Your task to perform on an android device: What's the weather going to be this weekend? Image 0: 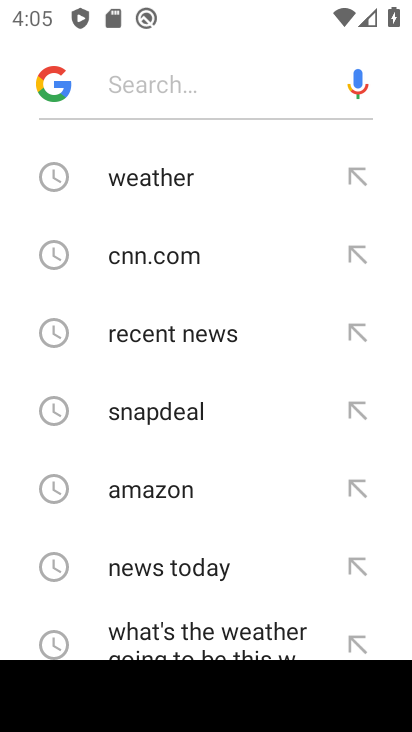
Step 0: click (216, 368)
Your task to perform on an android device: What's the weather going to be this weekend? Image 1: 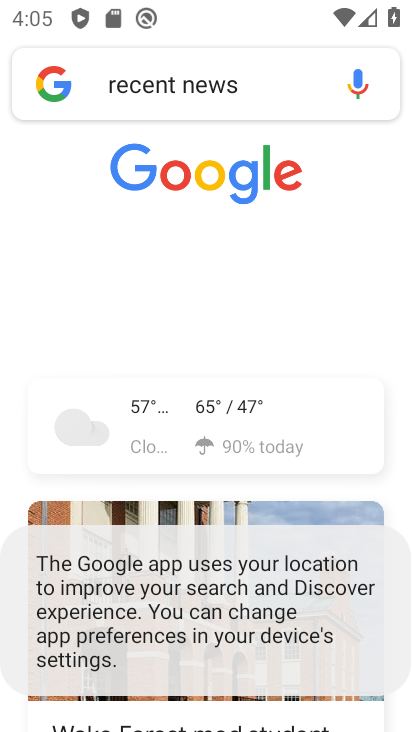
Step 1: click (210, 426)
Your task to perform on an android device: What's the weather going to be this weekend? Image 2: 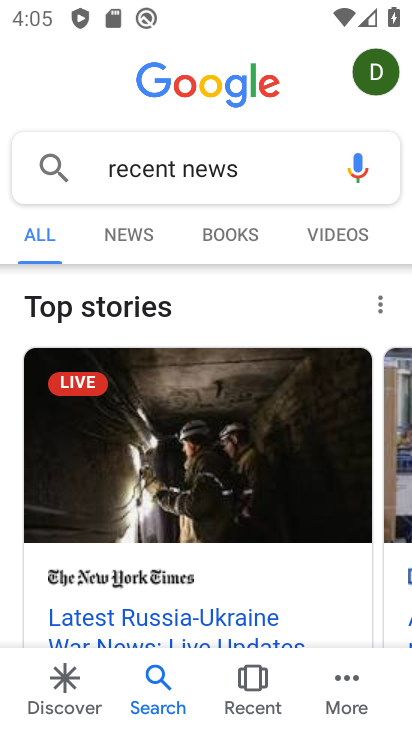
Step 2: press back button
Your task to perform on an android device: What's the weather going to be this weekend? Image 3: 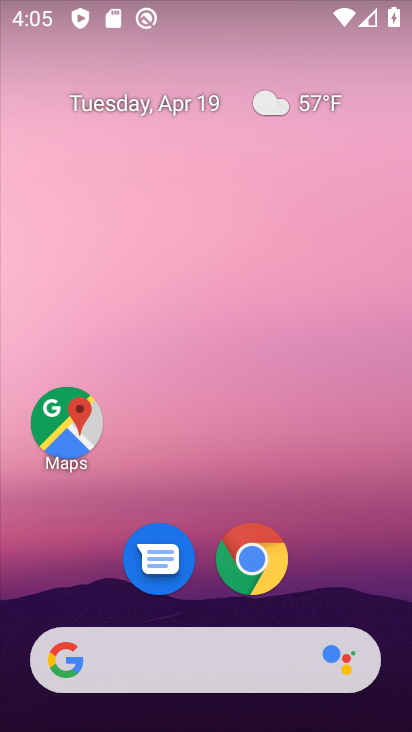
Step 3: click (198, 627)
Your task to perform on an android device: What's the weather going to be this weekend? Image 4: 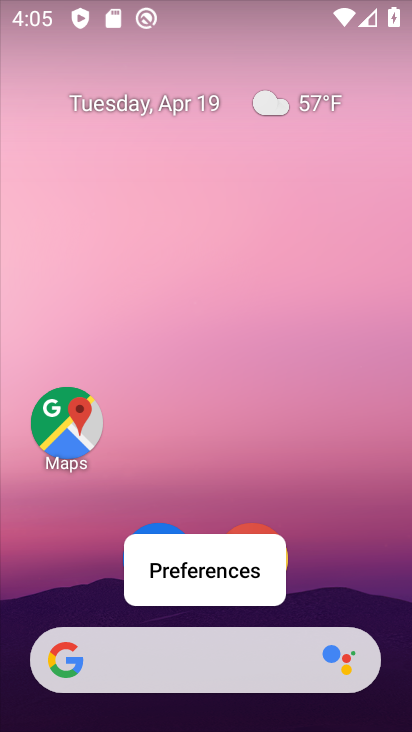
Step 4: click (180, 645)
Your task to perform on an android device: What's the weather going to be this weekend? Image 5: 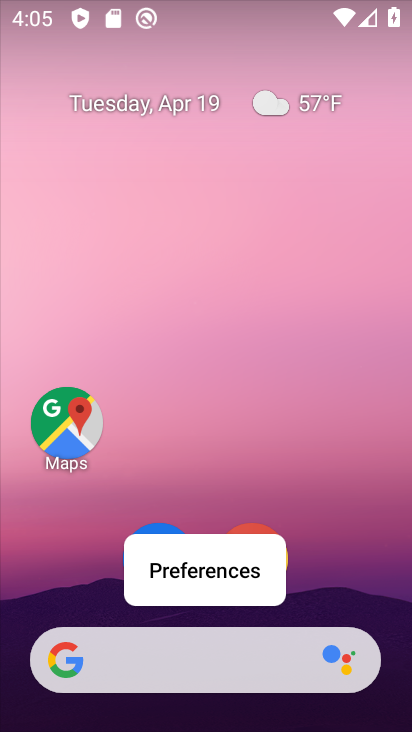
Step 5: click (183, 657)
Your task to perform on an android device: What's the weather going to be this weekend? Image 6: 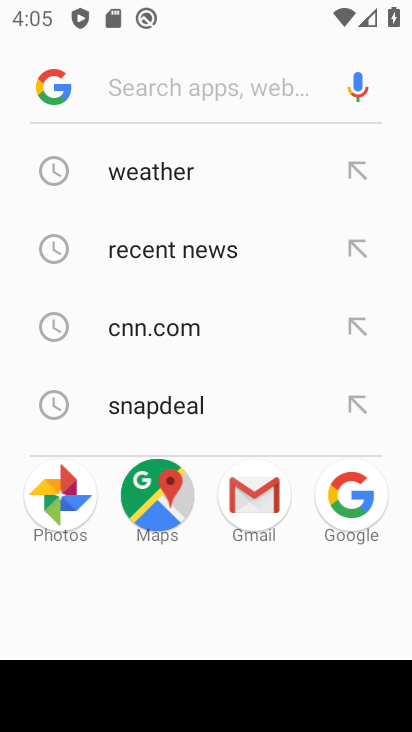
Step 6: click (191, 180)
Your task to perform on an android device: What's the weather going to be this weekend? Image 7: 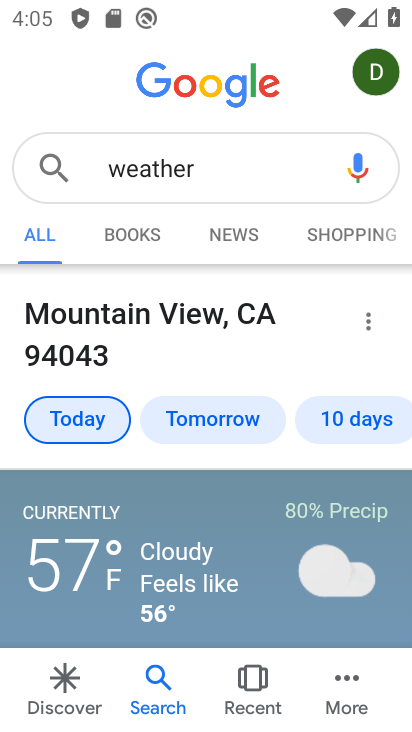
Step 7: drag from (208, 557) to (300, 307)
Your task to perform on an android device: What's the weather going to be this weekend? Image 8: 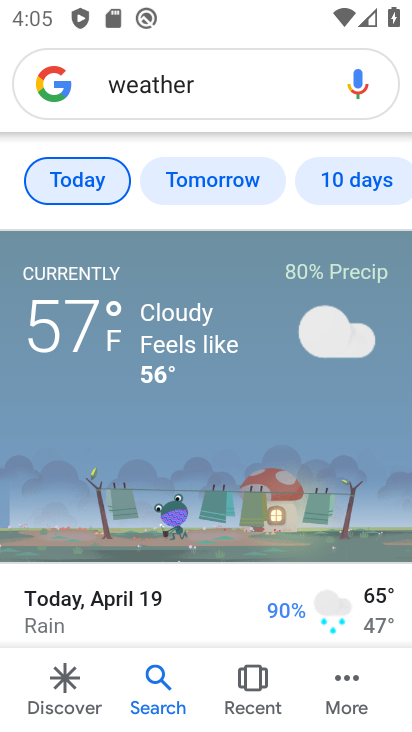
Step 8: click (342, 186)
Your task to perform on an android device: What's the weather going to be this weekend? Image 9: 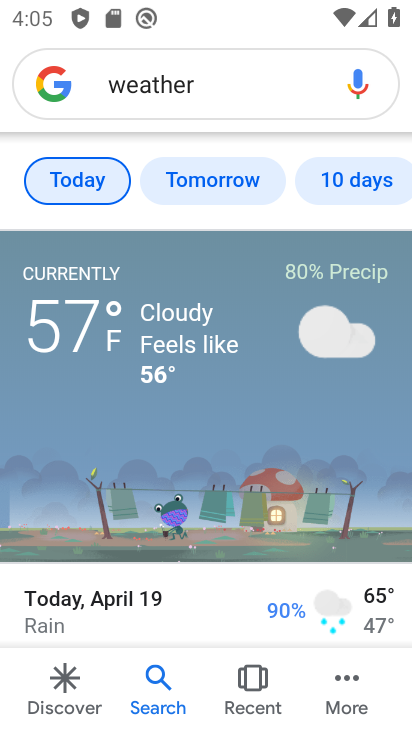
Step 9: click (348, 185)
Your task to perform on an android device: What's the weather going to be this weekend? Image 10: 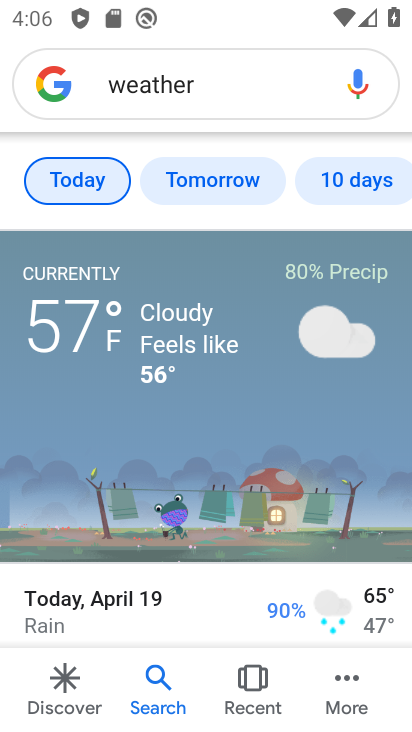
Step 10: click (348, 185)
Your task to perform on an android device: What's the weather going to be this weekend? Image 11: 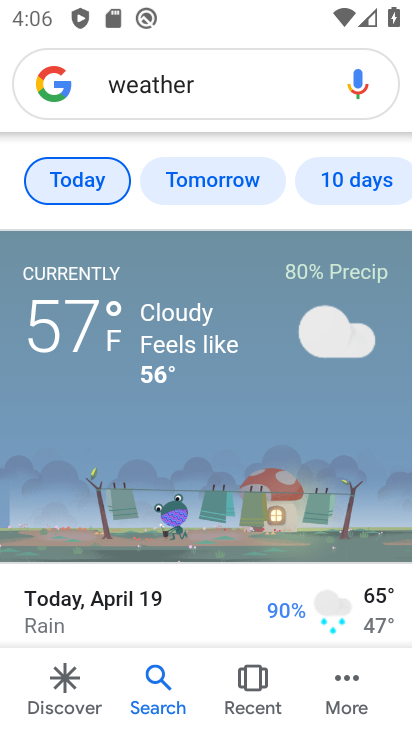
Step 11: click (348, 185)
Your task to perform on an android device: What's the weather going to be this weekend? Image 12: 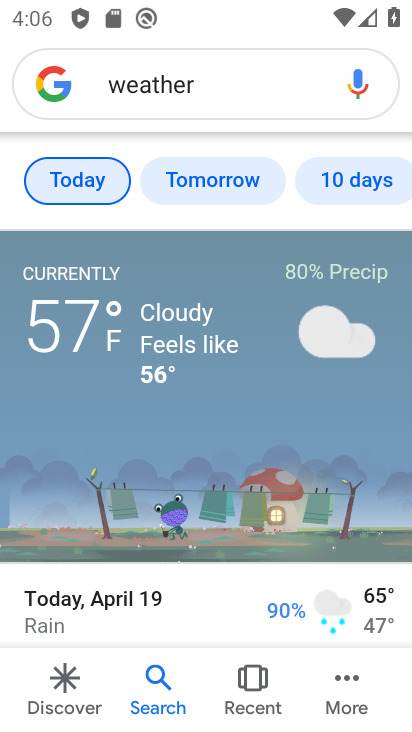
Step 12: click (348, 185)
Your task to perform on an android device: What's the weather going to be this weekend? Image 13: 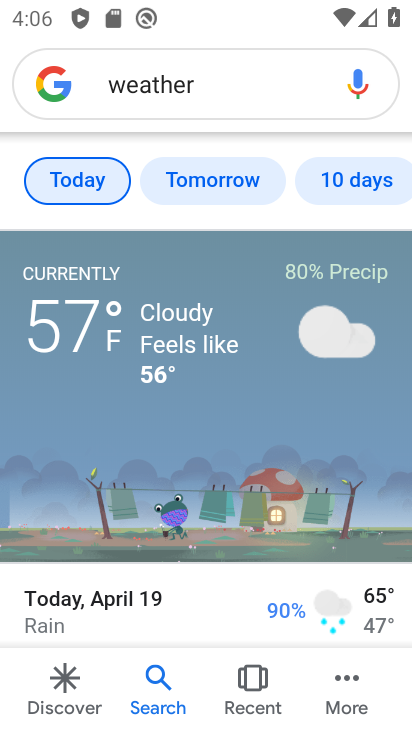
Step 13: click (350, 185)
Your task to perform on an android device: What's the weather going to be this weekend? Image 14: 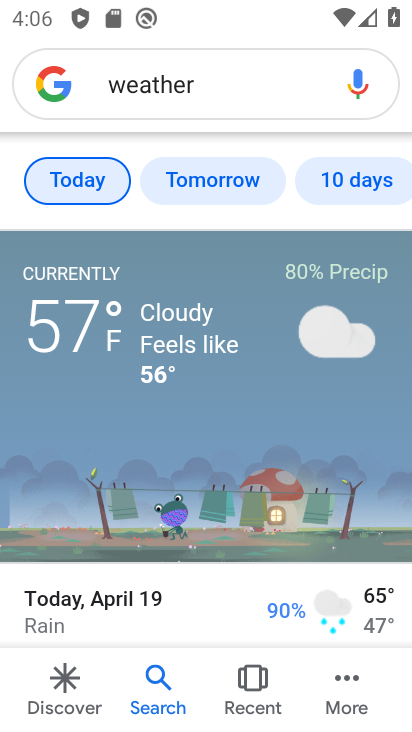
Step 14: click (343, 185)
Your task to perform on an android device: What's the weather going to be this weekend? Image 15: 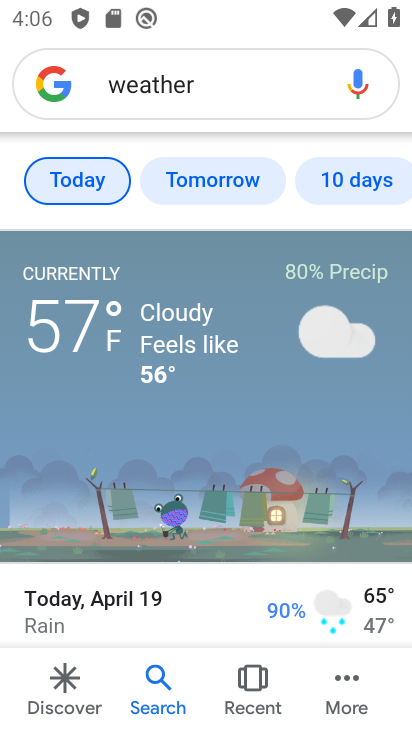
Step 15: click (343, 185)
Your task to perform on an android device: What's the weather going to be this weekend? Image 16: 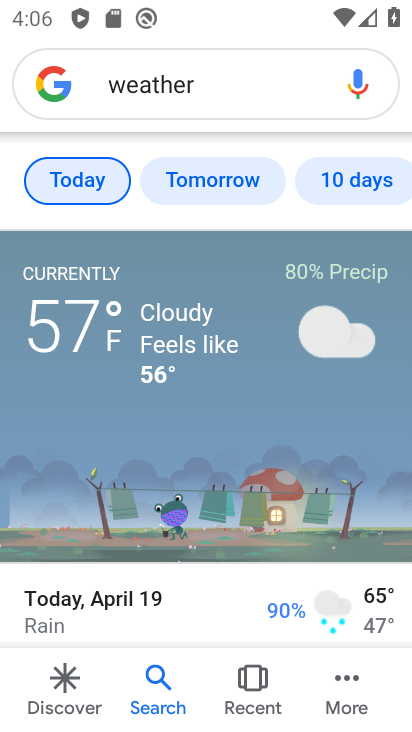
Step 16: drag from (204, 518) to (249, 506)
Your task to perform on an android device: What's the weather going to be this weekend? Image 17: 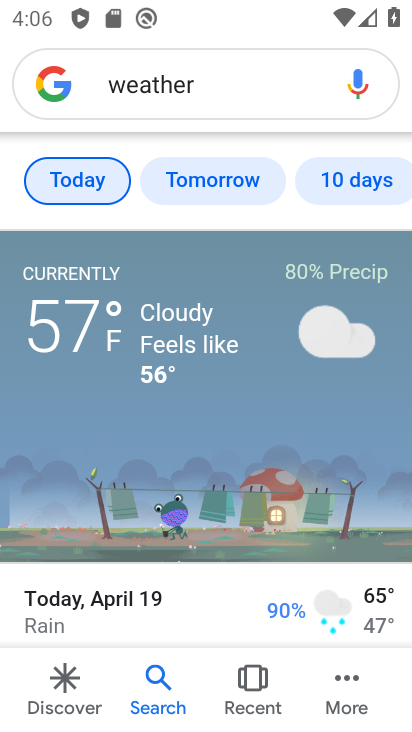
Step 17: click (362, 185)
Your task to perform on an android device: What's the weather going to be this weekend? Image 18: 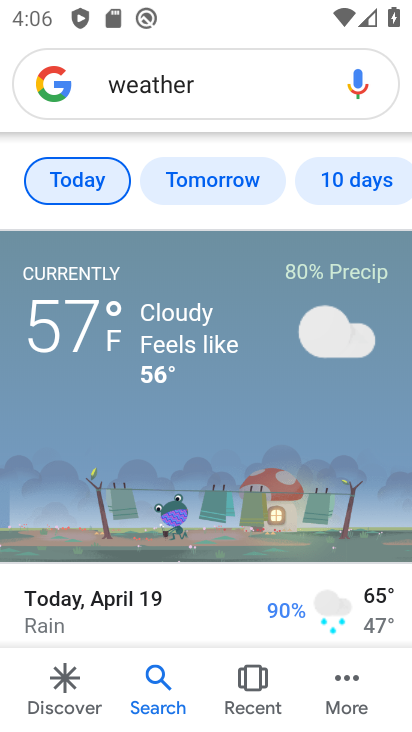
Step 18: click (361, 186)
Your task to perform on an android device: What's the weather going to be this weekend? Image 19: 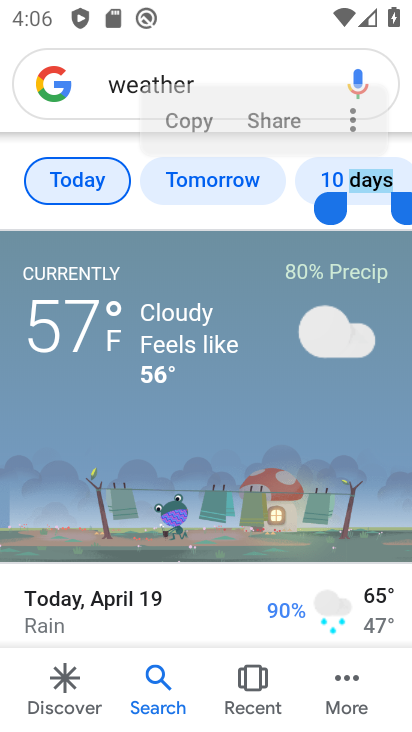
Step 19: click (361, 186)
Your task to perform on an android device: What's the weather going to be this weekend? Image 20: 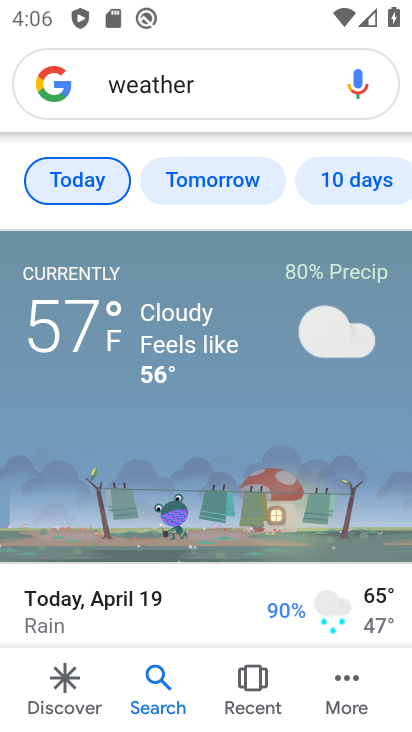
Step 20: click (309, 186)
Your task to perform on an android device: What's the weather going to be this weekend? Image 21: 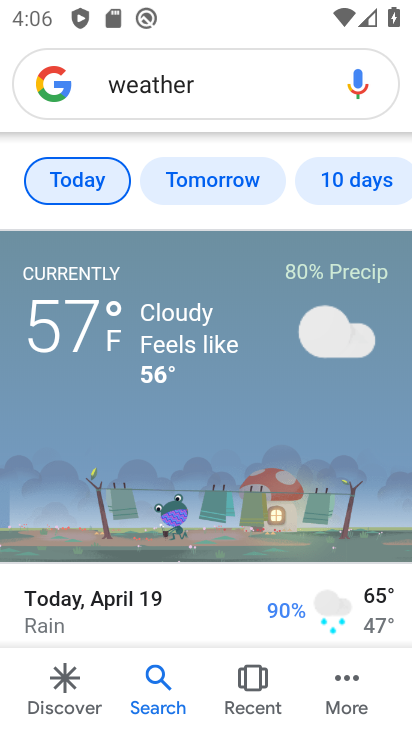
Step 21: click (314, 186)
Your task to perform on an android device: What's the weather going to be this weekend? Image 22: 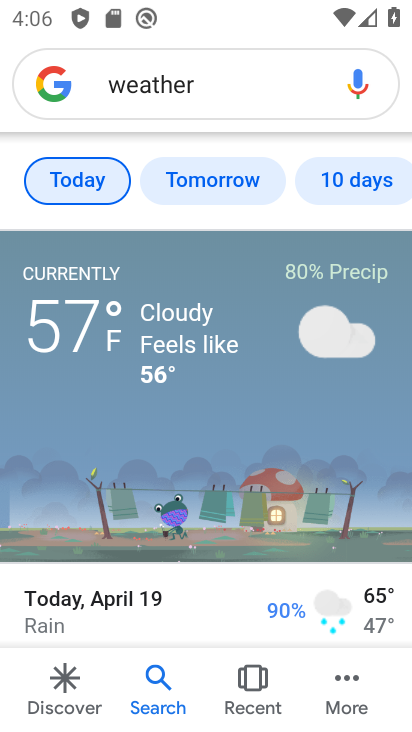
Step 22: click (327, 186)
Your task to perform on an android device: What's the weather going to be this weekend? Image 23: 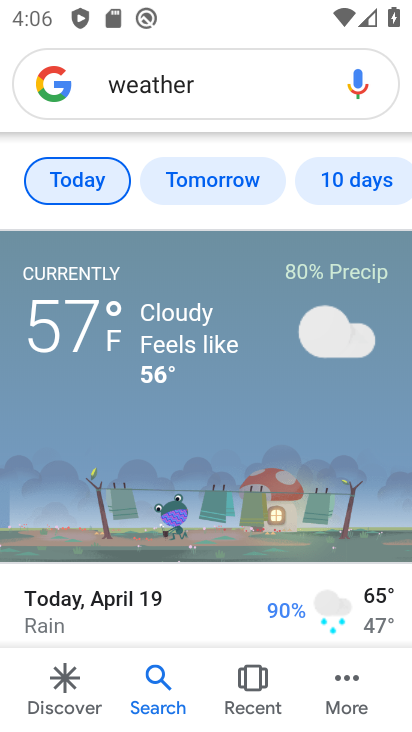
Step 23: click (327, 186)
Your task to perform on an android device: What's the weather going to be this weekend? Image 24: 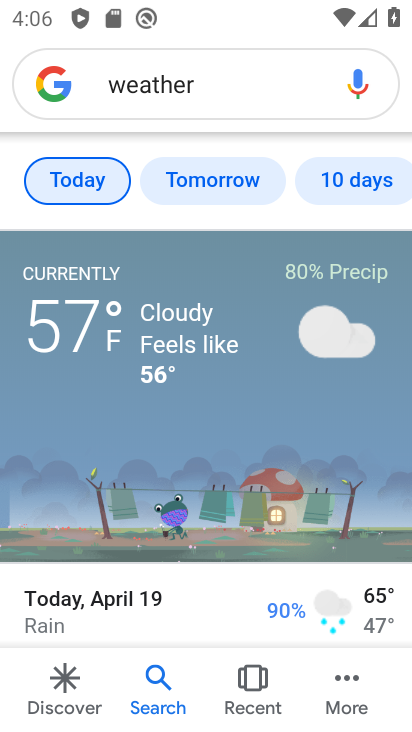
Step 24: press back button
Your task to perform on an android device: What's the weather going to be this weekend? Image 25: 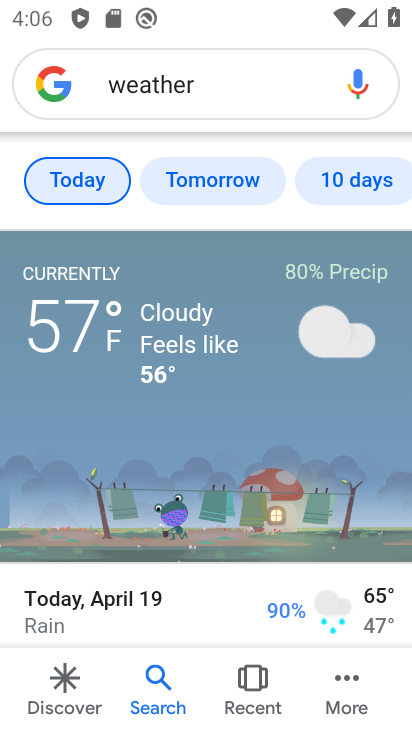
Step 25: press back button
Your task to perform on an android device: What's the weather going to be this weekend? Image 26: 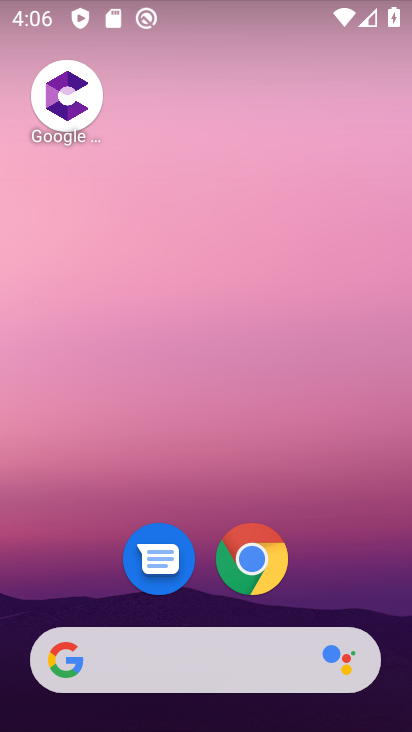
Step 26: press home button
Your task to perform on an android device: What's the weather going to be this weekend? Image 27: 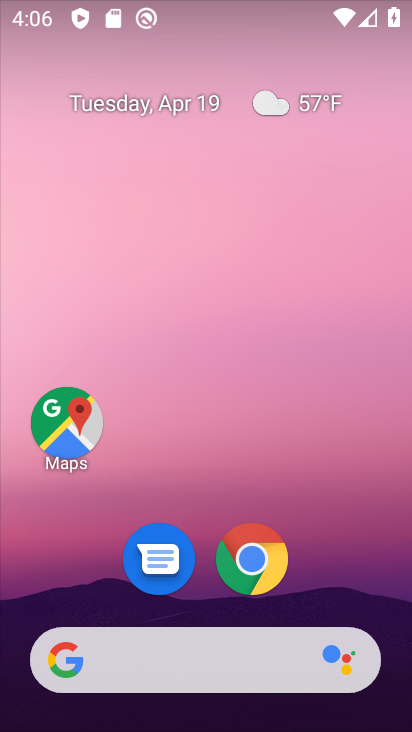
Step 27: click (192, 662)
Your task to perform on an android device: What's the weather going to be this weekend? Image 28: 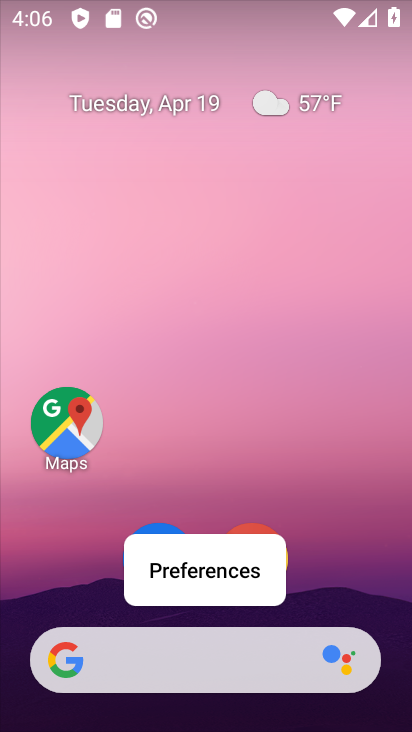
Step 28: click (192, 662)
Your task to perform on an android device: What's the weather going to be this weekend? Image 29: 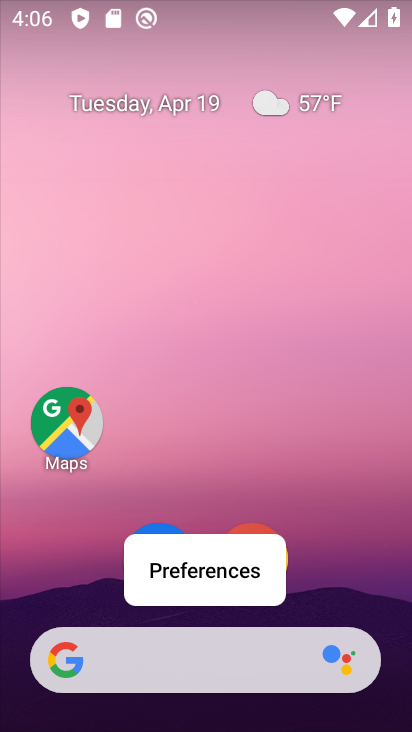
Step 29: click (198, 669)
Your task to perform on an android device: What's the weather going to be this weekend? Image 30: 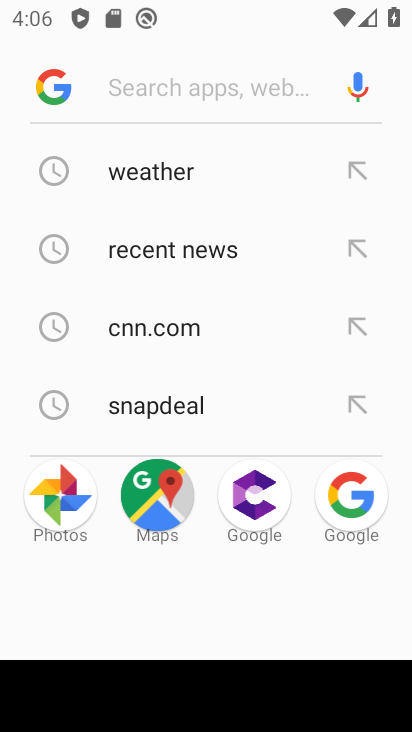
Step 30: click (193, 177)
Your task to perform on an android device: What's the weather going to be this weekend? Image 31: 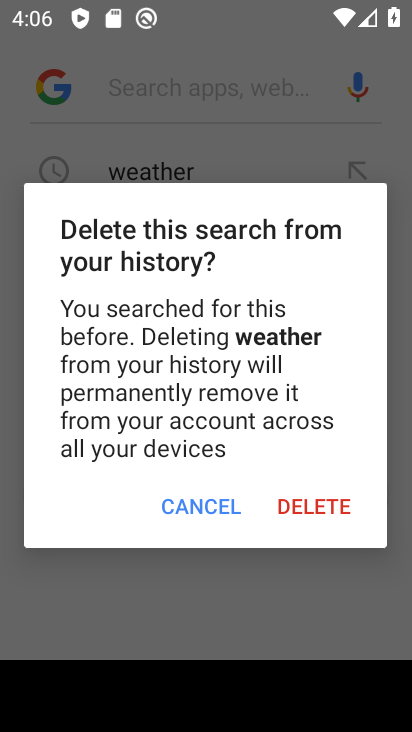
Step 31: click (203, 508)
Your task to perform on an android device: What's the weather going to be this weekend? Image 32: 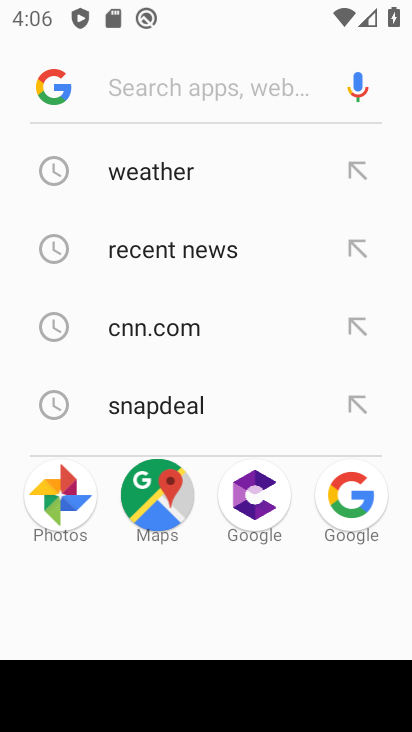
Step 32: click (288, 163)
Your task to perform on an android device: What's the weather going to be this weekend? Image 33: 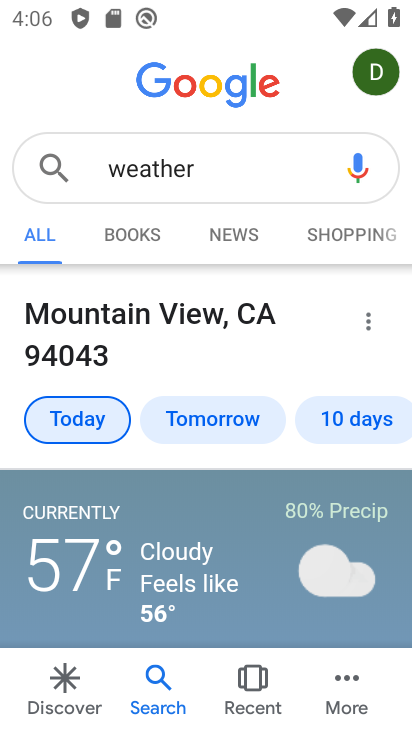
Step 33: drag from (166, 458) to (276, 141)
Your task to perform on an android device: What's the weather going to be this weekend? Image 34: 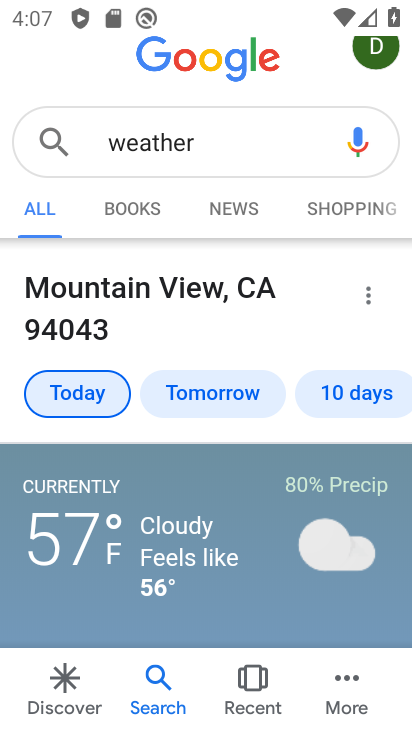
Step 34: drag from (219, 534) to (311, 211)
Your task to perform on an android device: What's the weather going to be this weekend? Image 35: 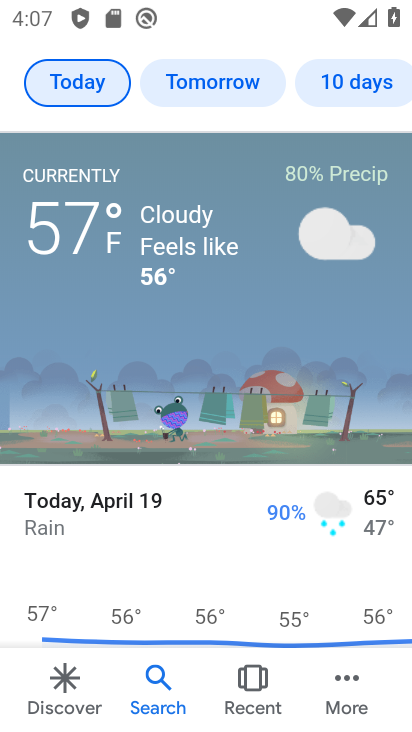
Step 35: click (359, 84)
Your task to perform on an android device: What's the weather going to be this weekend? Image 36: 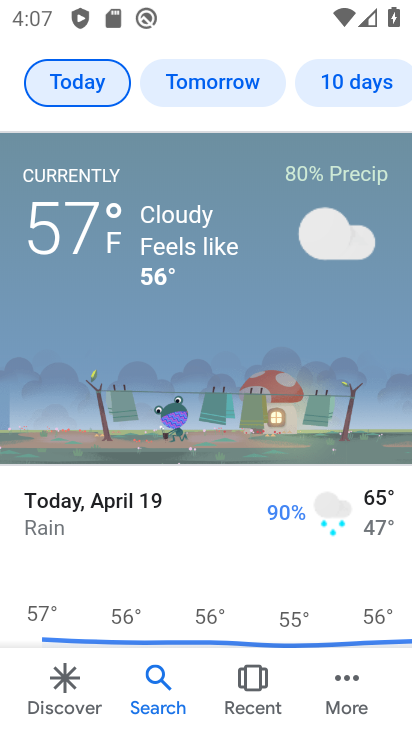
Step 36: click (359, 84)
Your task to perform on an android device: What's the weather going to be this weekend? Image 37: 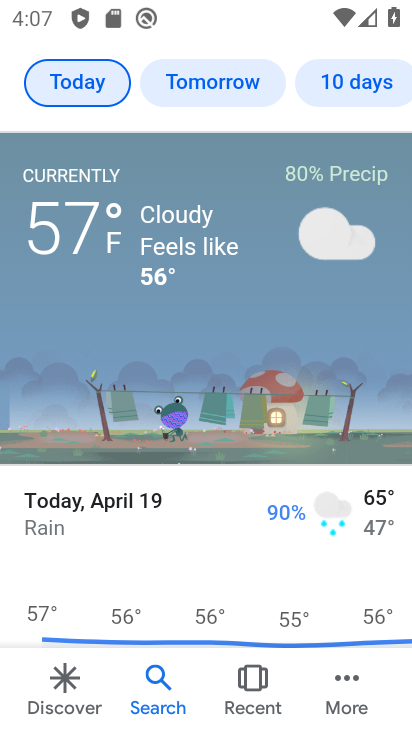
Step 37: click (359, 84)
Your task to perform on an android device: What's the weather going to be this weekend? Image 38: 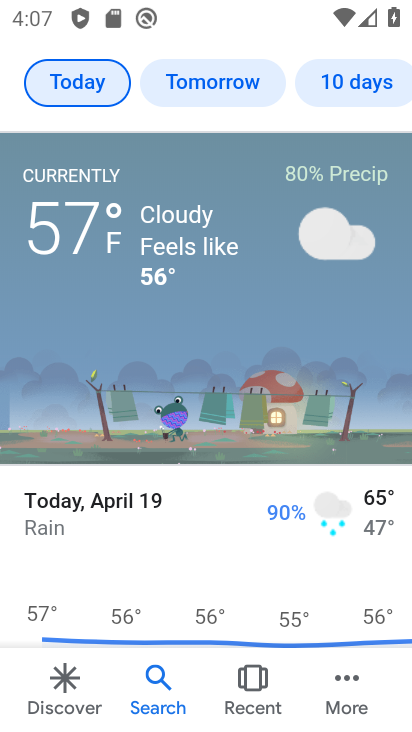
Step 38: click (359, 83)
Your task to perform on an android device: What's the weather going to be this weekend? Image 39: 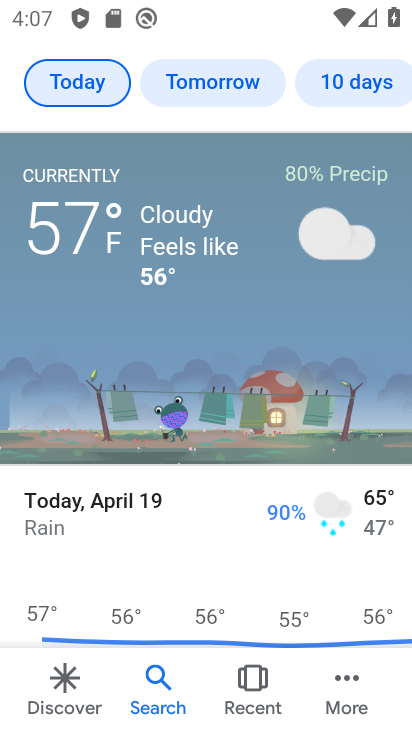
Step 39: click (359, 83)
Your task to perform on an android device: What's the weather going to be this weekend? Image 40: 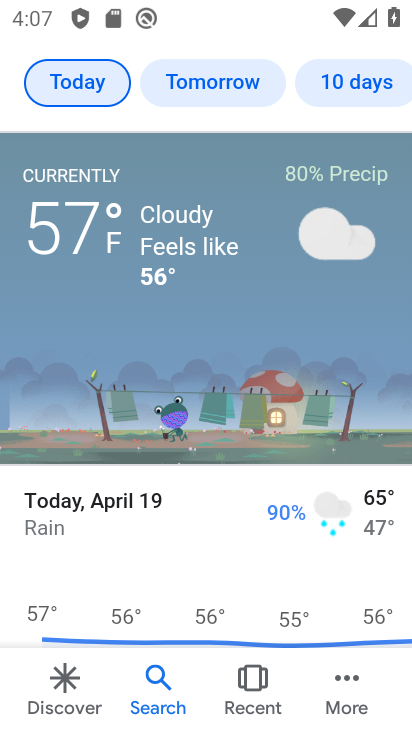
Step 40: click (366, 104)
Your task to perform on an android device: What's the weather going to be this weekend? Image 41: 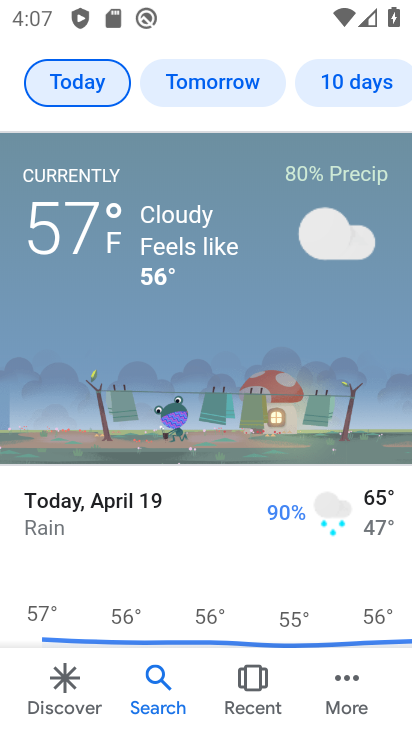
Step 41: click (367, 101)
Your task to perform on an android device: What's the weather going to be this weekend? Image 42: 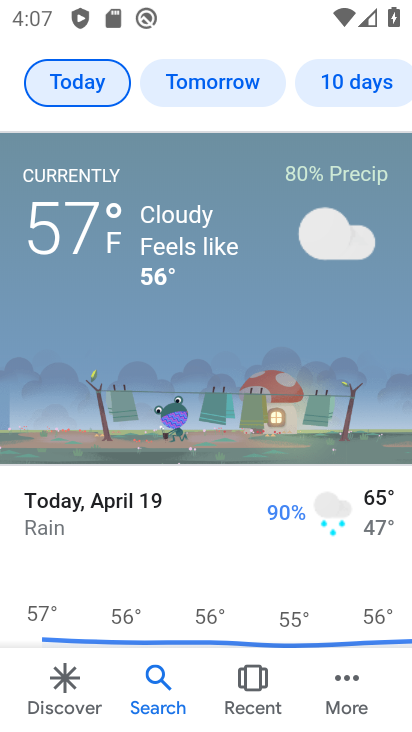
Step 42: click (361, 91)
Your task to perform on an android device: What's the weather going to be this weekend? Image 43: 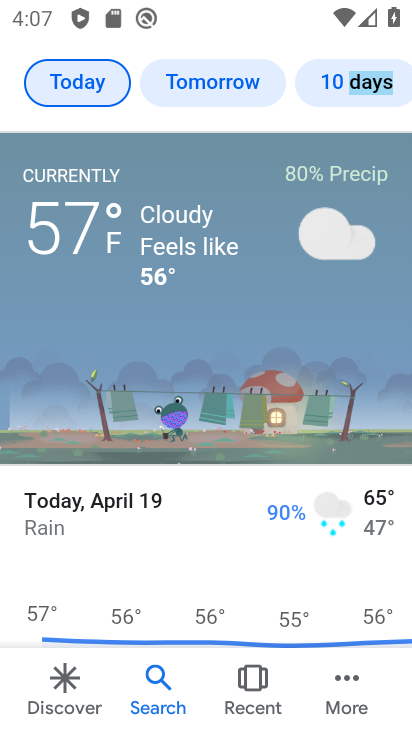
Step 43: click (353, 91)
Your task to perform on an android device: What's the weather going to be this weekend? Image 44: 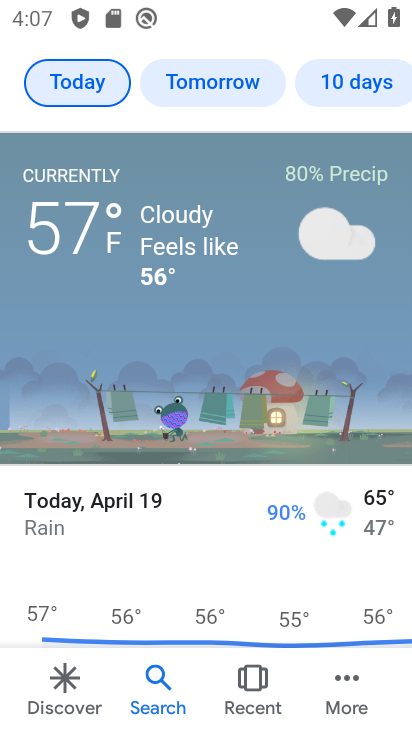
Step 44: click (313, 279)
Your task to perform on an android device: What's the weather going to be this weekend? Image 45: 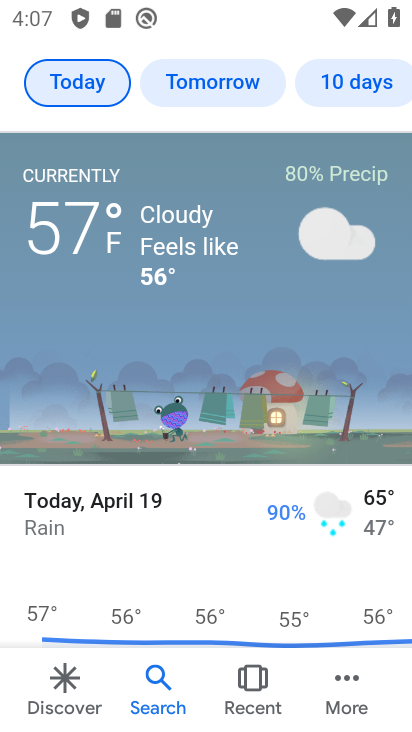
Step 45: click (230, 550)
Your task to perform on an android device: What's the weather going to be this weekend? Image 46: 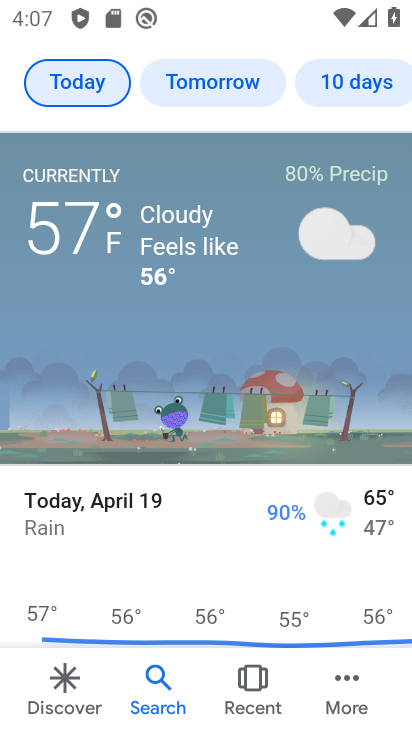
Step 46: drag from (218, 594) to (351, 167)
Your task to perform on an android device: What's the weather going to be this weekend? Image 47: 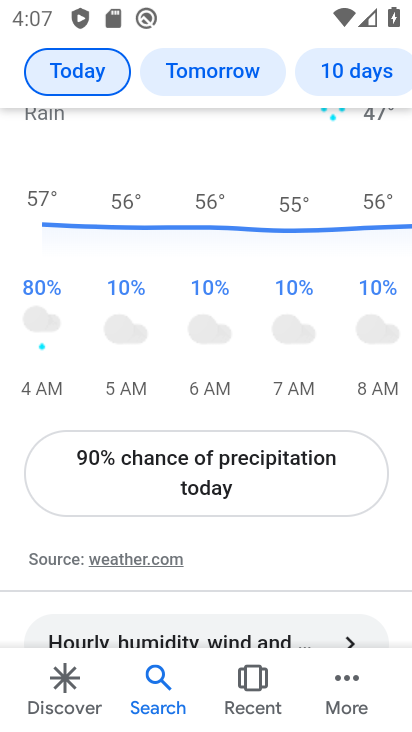
Step 47: click (249, 472)
Your task to perform on an android device: What's the weather going to be this weekend? Image 48: 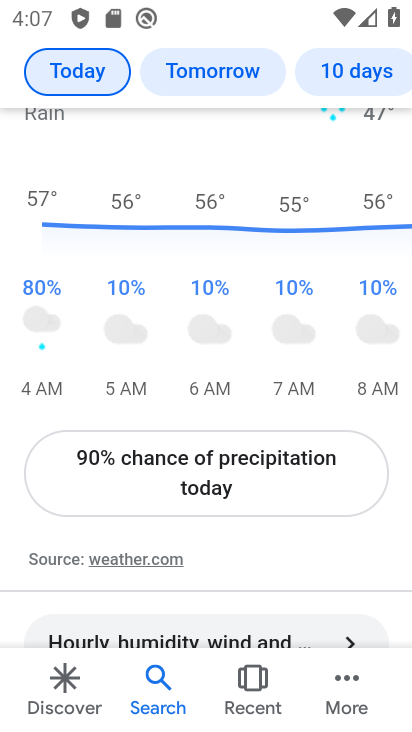
Step 48: click (268, 332)
Your task to perform on an android device: What's the weather going to be this weekend? Image 49: 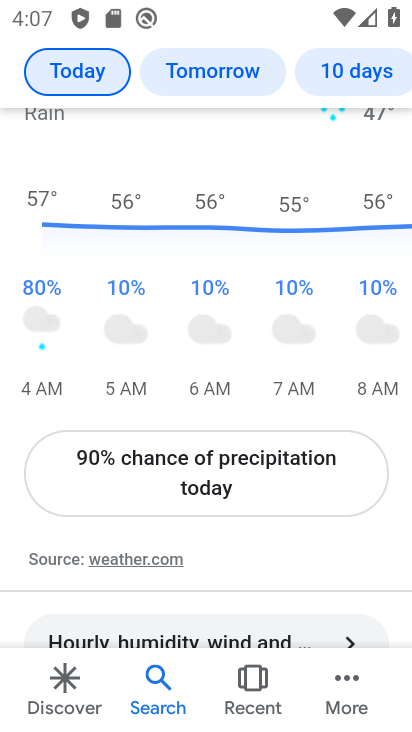
Step 49: click (378, 65)
Your task to perform on an android device: What's the weather going to be this weekend? Image 50: 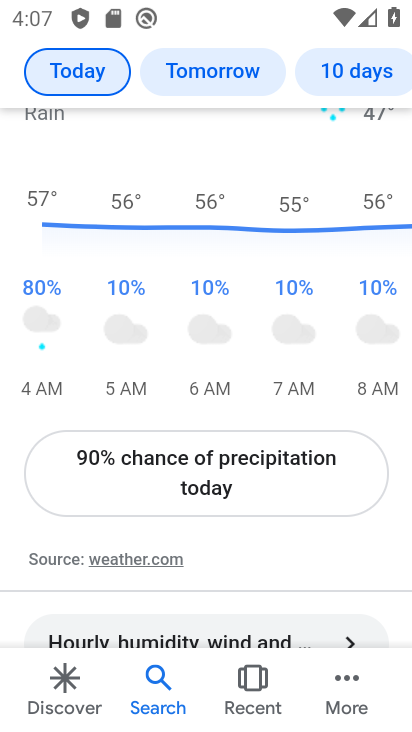
Step 50: click (378, 66)
Your task to perform on an android device: What's the weather going to be this weekend? Image 51: 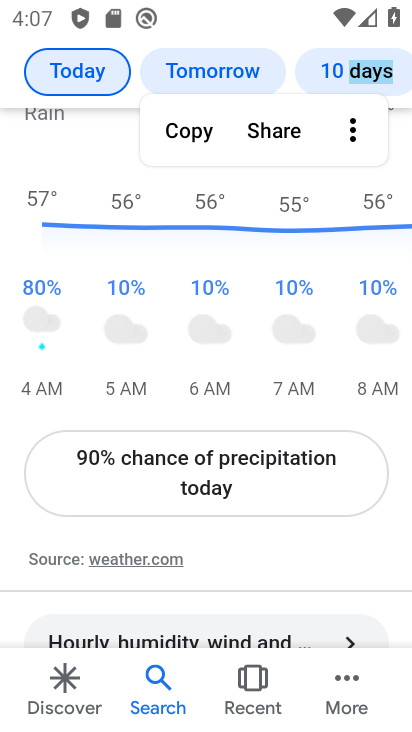
Step 51: task complete